Your task to perform on an android device: find photos in the google photos app Image 0: 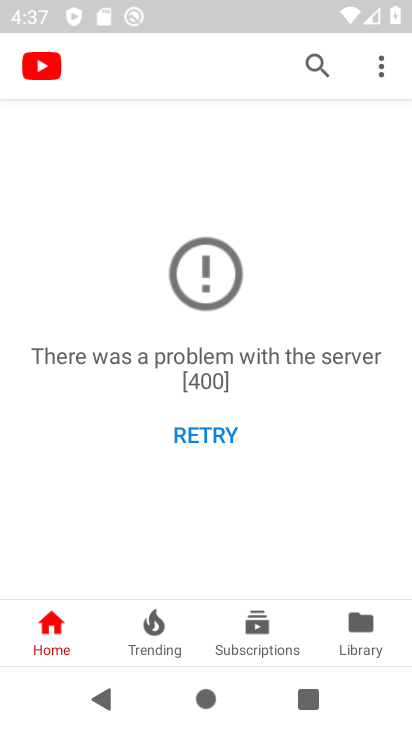
Step 0: press home button
Your task to perform on an android device: find photos in the google photos app Image 1: 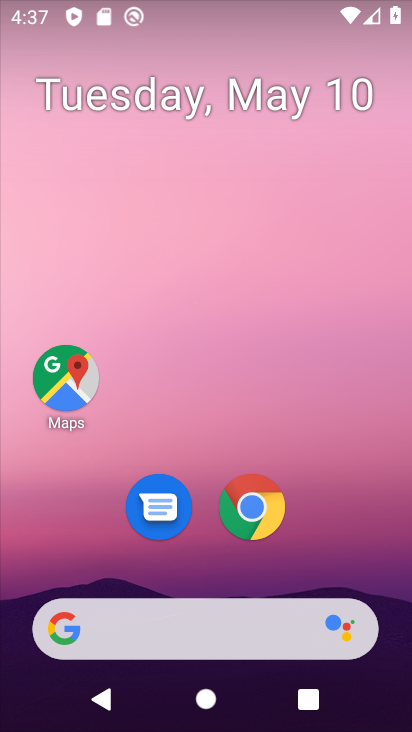
Step 1: drag from (208, 578) to (229, 39)
Your task to perform on an android device: find photos in the google photos app Image 2: 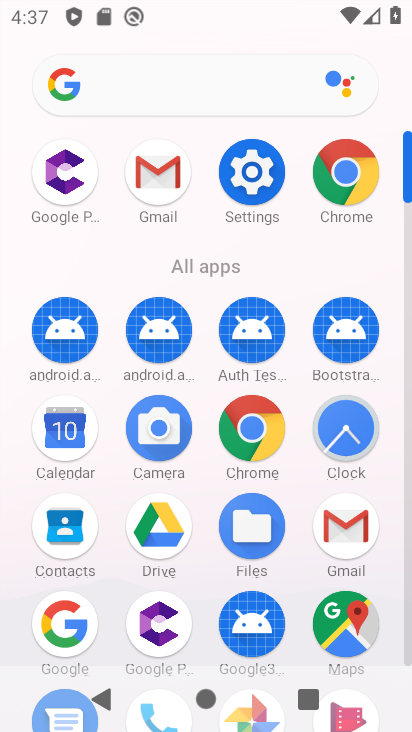
Step 2: drag from (205, 601) to (215, 251)
Your task to perform on an android device: find photos in the google photos app Image 3: 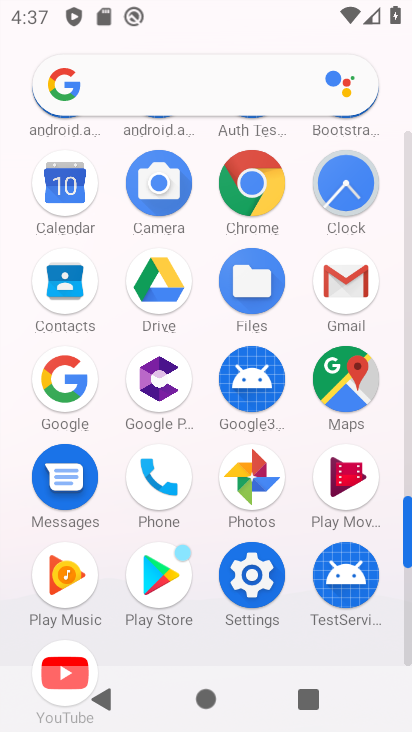
Step 3: click (247, 500)
Your task to perform on an android device: find photos in the google photos app Image 4: 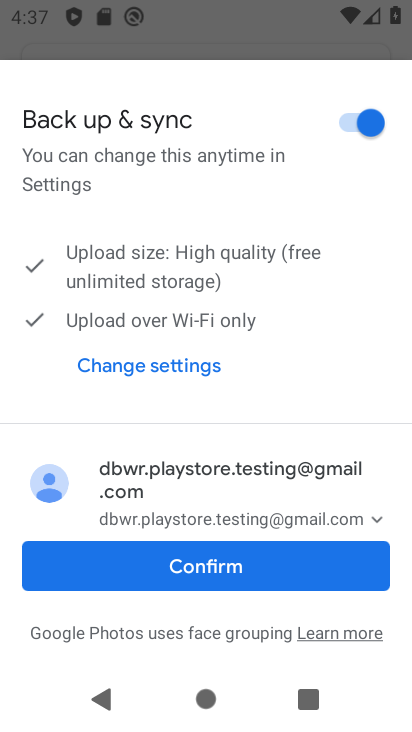
Step 4: click (206, 563)
Your task to perform on an android device: find photos in the google photos app Image 5: 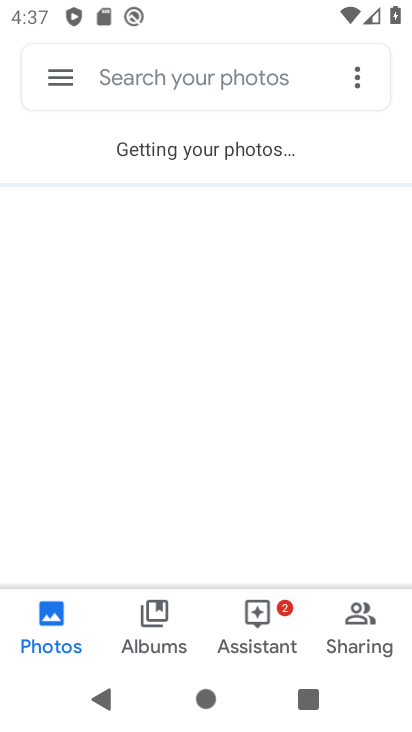
Step 5: click (271, 292)
Your task to perform on an android device: find photos in the google photos app Image 6: 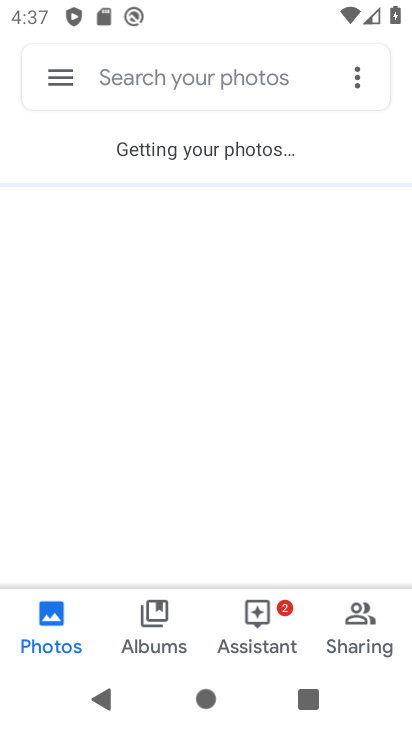
Step 6: drag from (233, 245) to (268, 449)
Your task to perform on an android device: find photos in the google photos app Image 7: 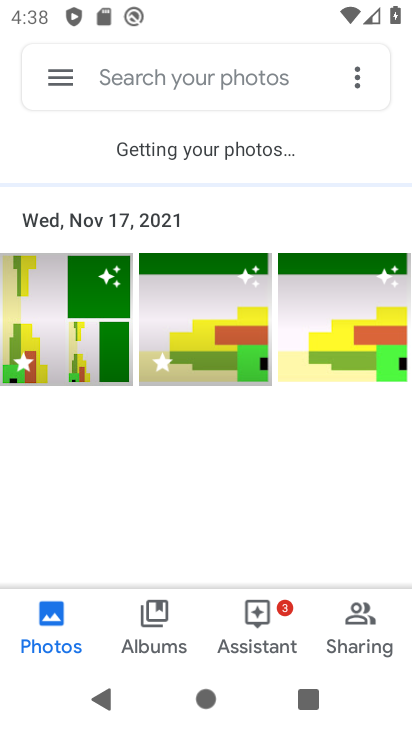
Step 7: drag from (257, 464) to (269, 291)
Your task to perform on an android device: find photos in the google photos app Image 8: 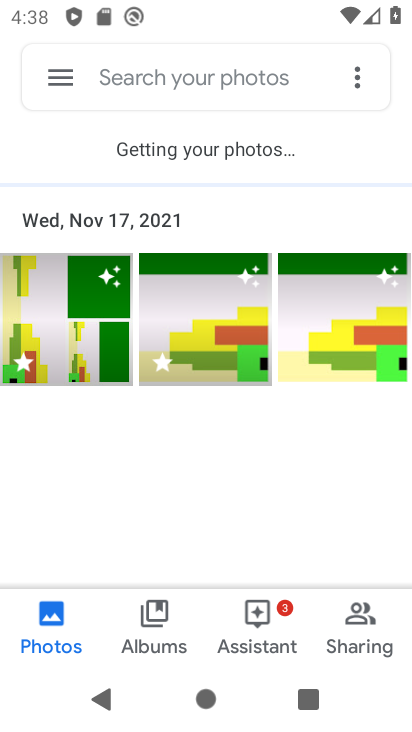
Step 8: click (92, 354)
Your task to perform on an android device: find photos in the google photos app Image 9: 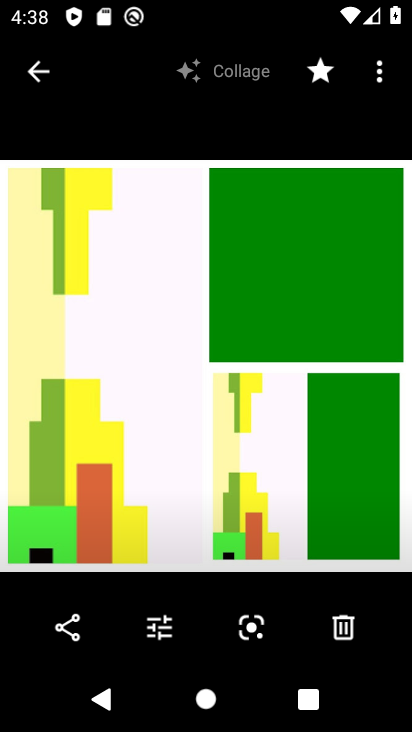
Step 9: task complete